Your task to perform on an android device: Open the phone app and click the voicemail tab. Image 0: 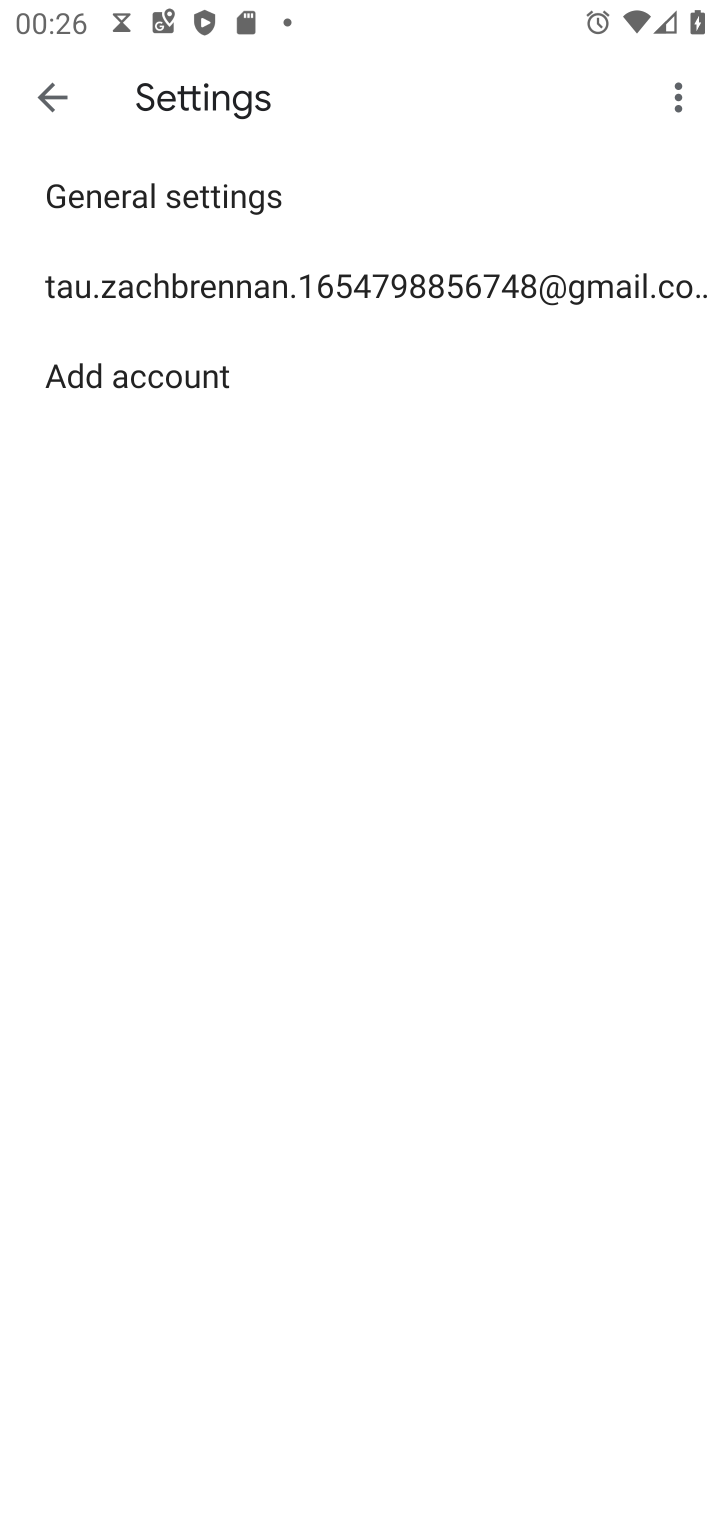
Step 0: press home button
Your task to perform on an android device: Open the phone app and click the voicemail tab. Image 1: 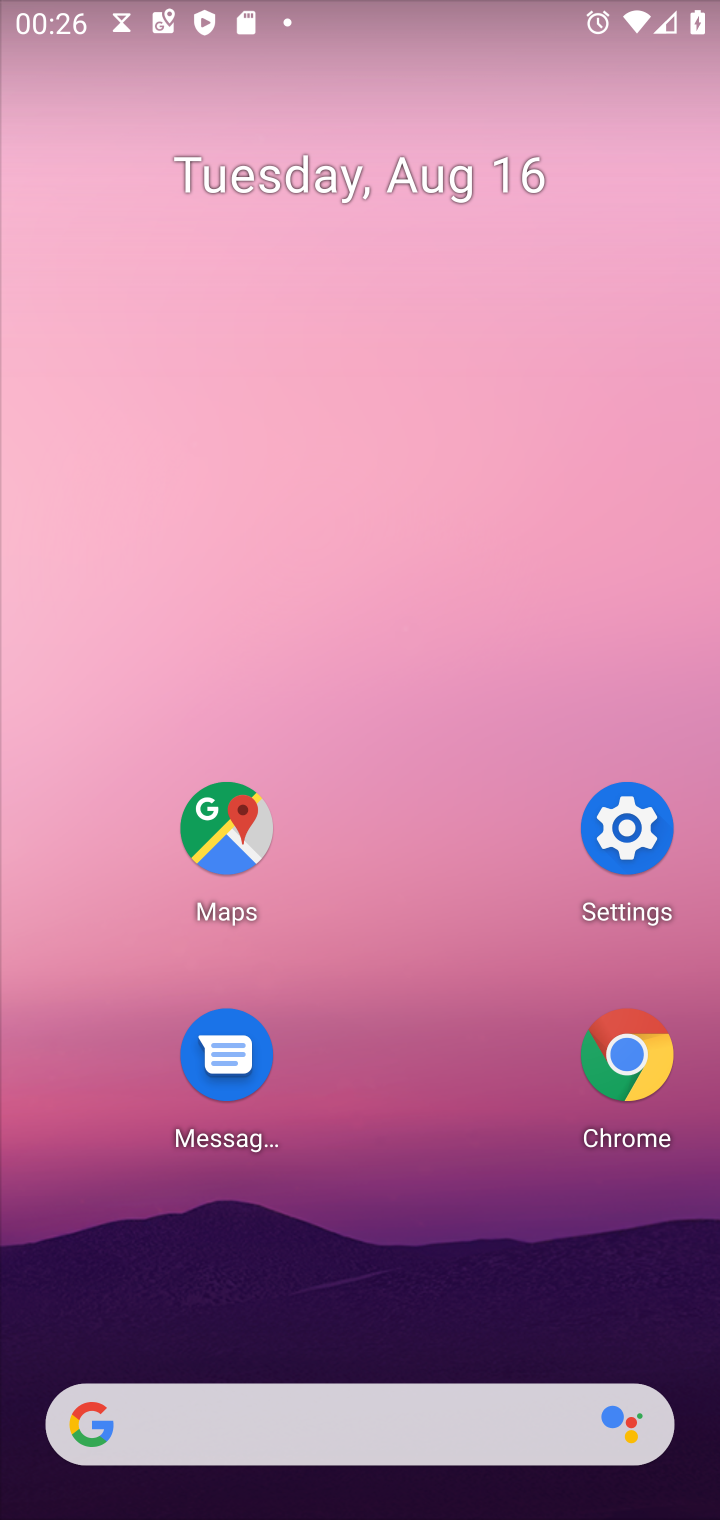
Step 1: drag from (382, 998) to (515, 363)
Your task to perform on an android device: Open the phone app and click the voicemail tab. Image 2: 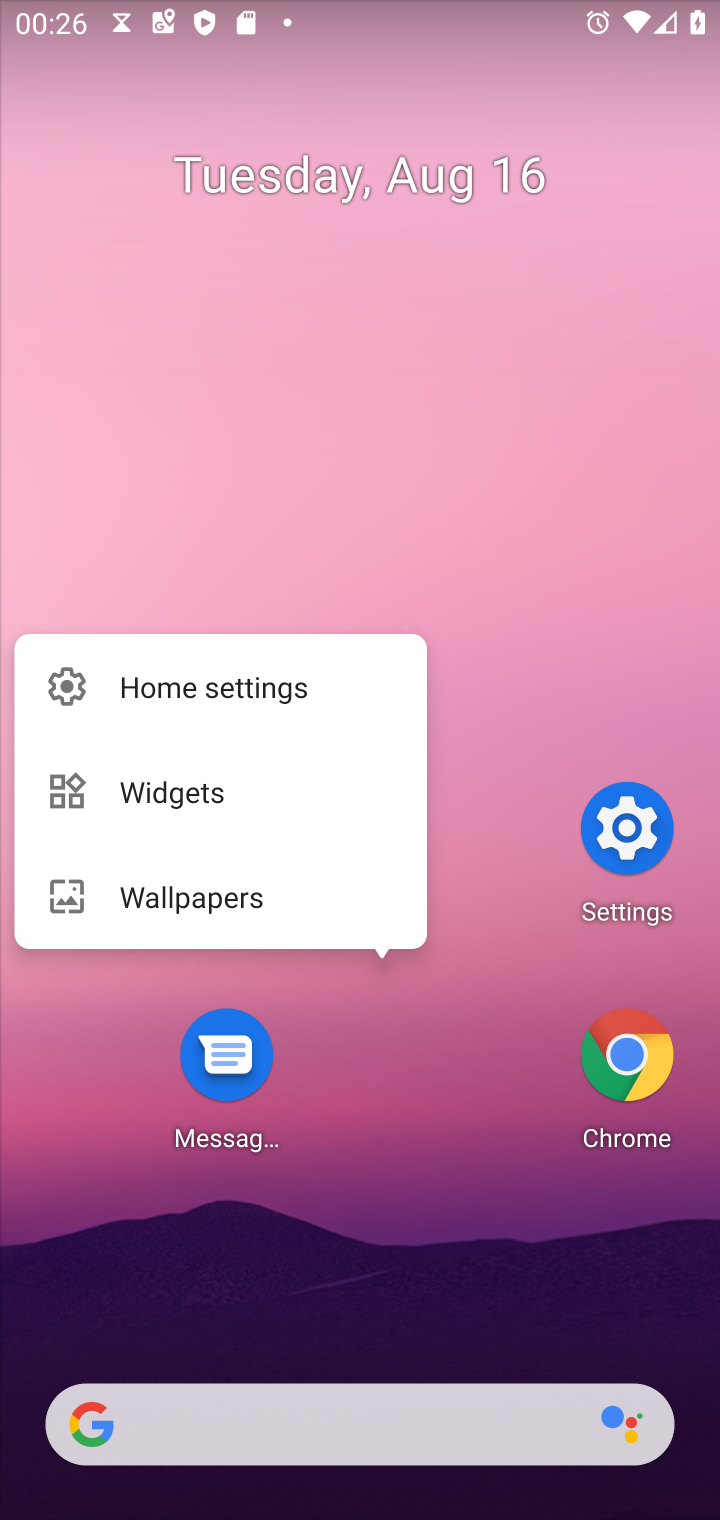
Step 2: drag from (404, 1302) to (595, 153)
Your task to perform on an android device: Open the phone app and click the voicemail tab. Image 3: 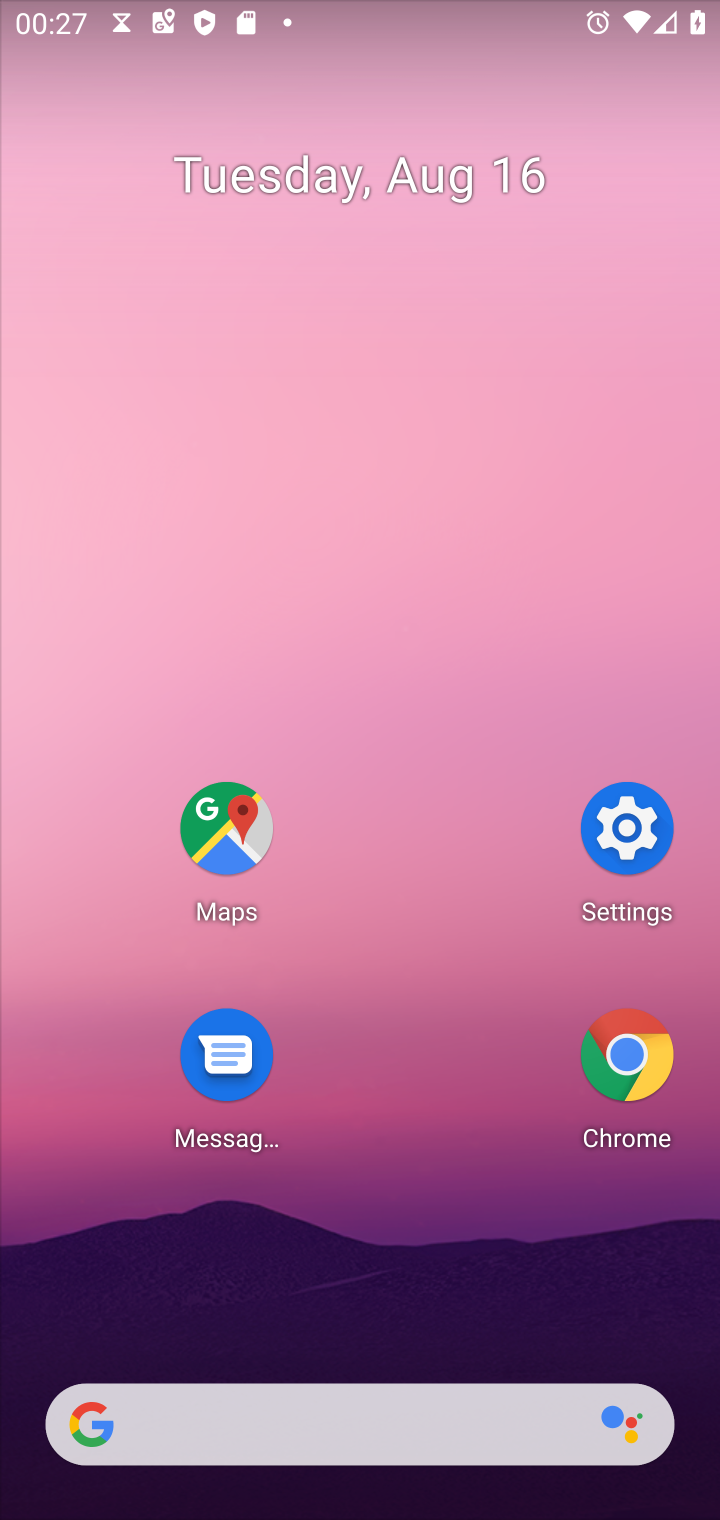
Step 3: drag from (457, 837) to (539, 348)
Your task to perform on an android device: Open the phone app and click the voicemail tab. Image 4: 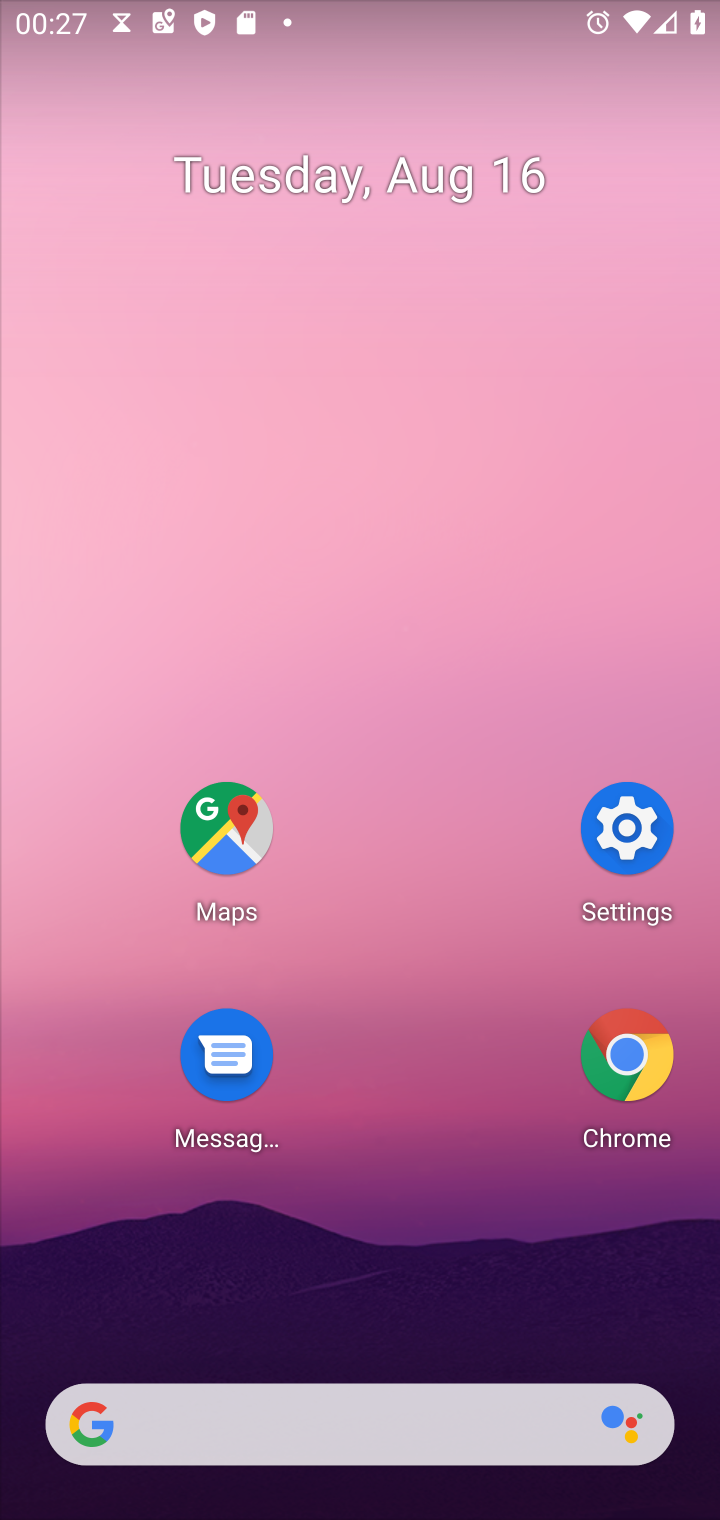
Step 4: drag from (479, 711) to (581, 238)
Your task to perform on an android device: Open the phone app and click the voicemail tab. Image 5: 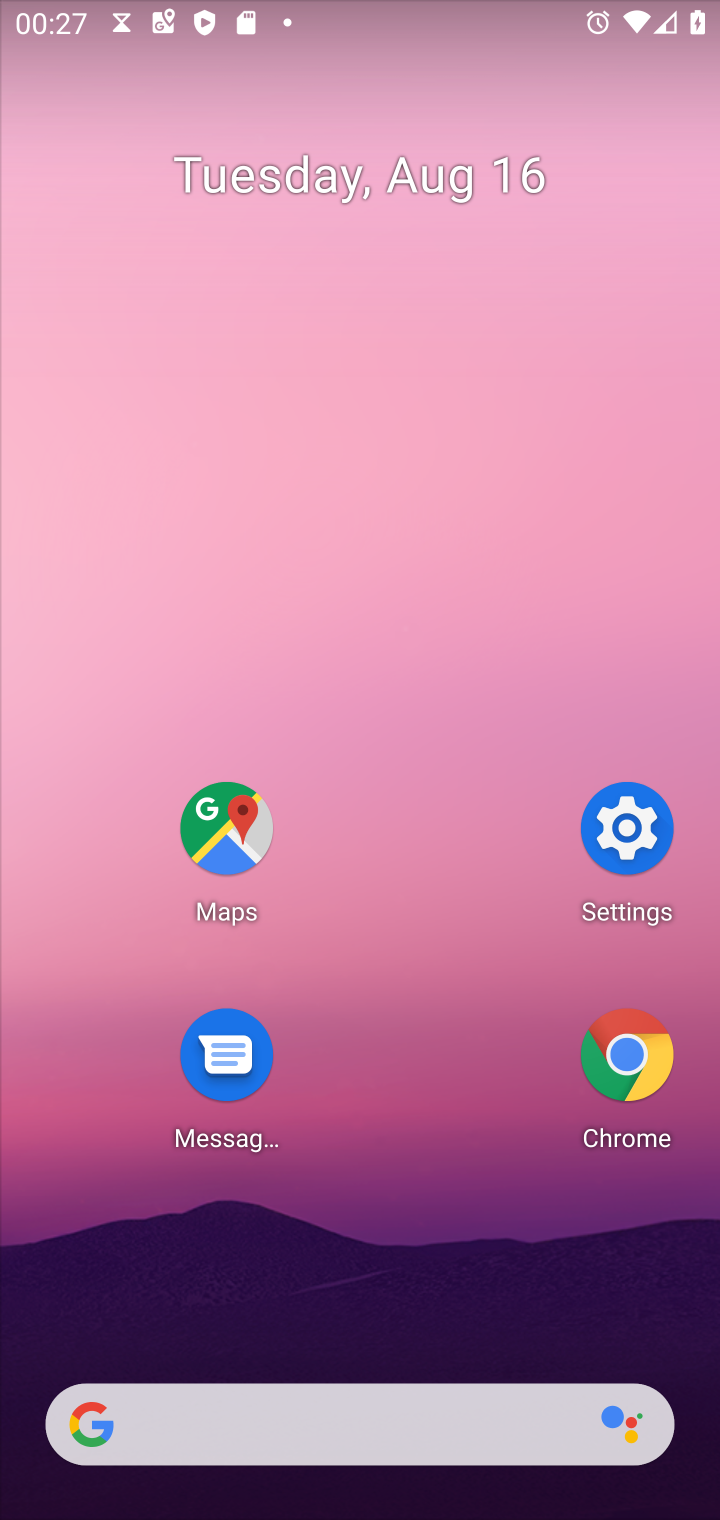
Step 5: drag from (428, 1193) to (537, 122)
Your task to perform on an android device: Open the phone app and click the voicemail tab. Image 6: 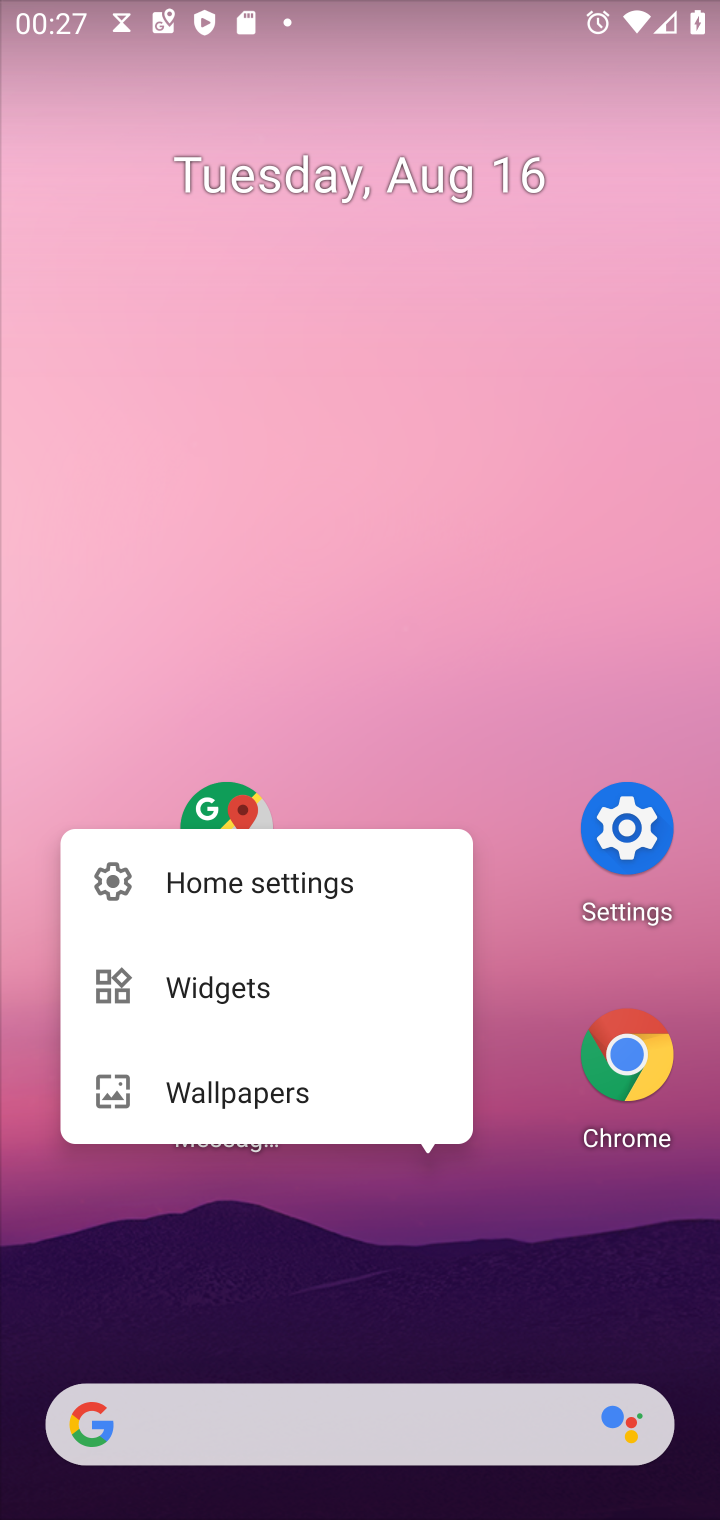
Step 6: drag from (513, 673) to (586, 218)
Your task to perform on an android device: Open the phone app and click the voicemail tab. Image 7: 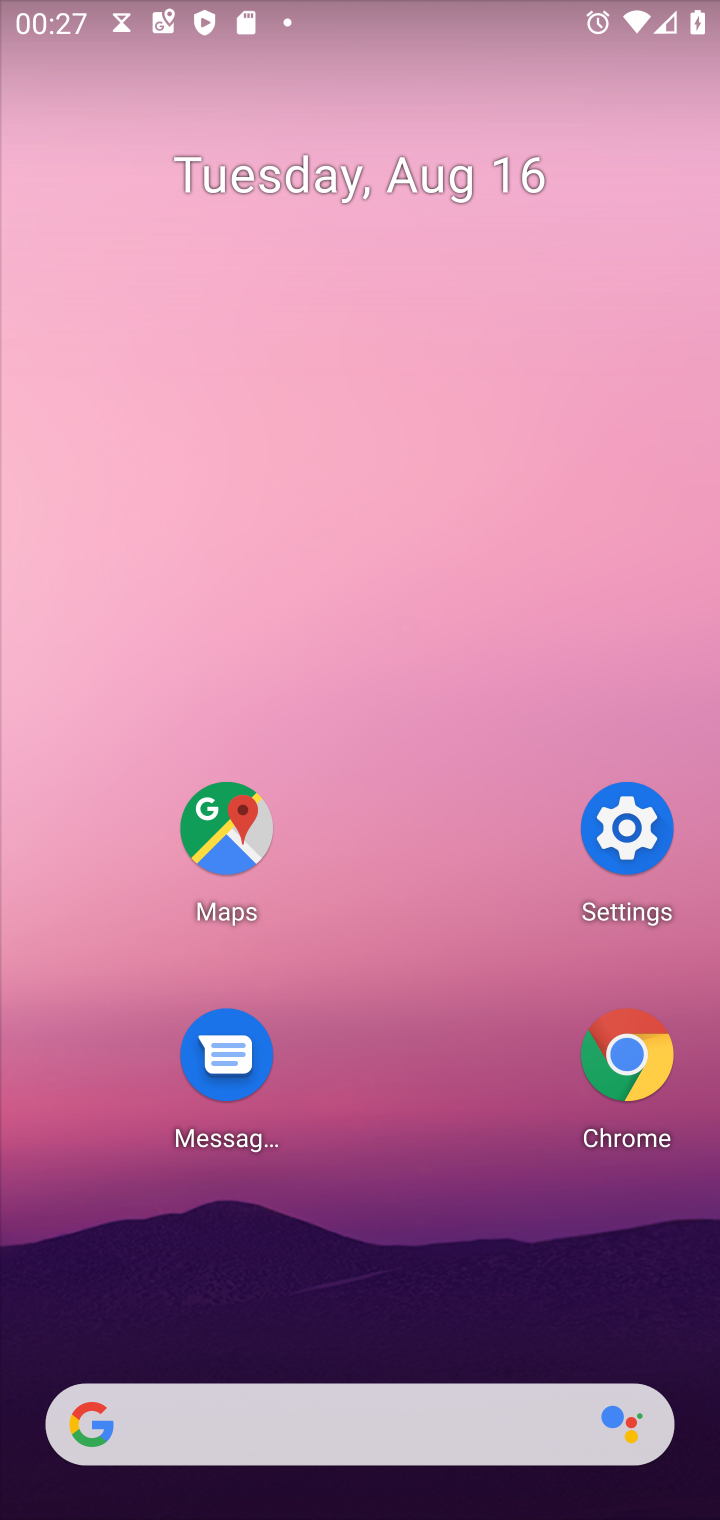
Step 7: drag from (362, 1322) to (659, 201)
Your task to perform on an android device: Open the phone app and click the voicemail tab. Image 8: 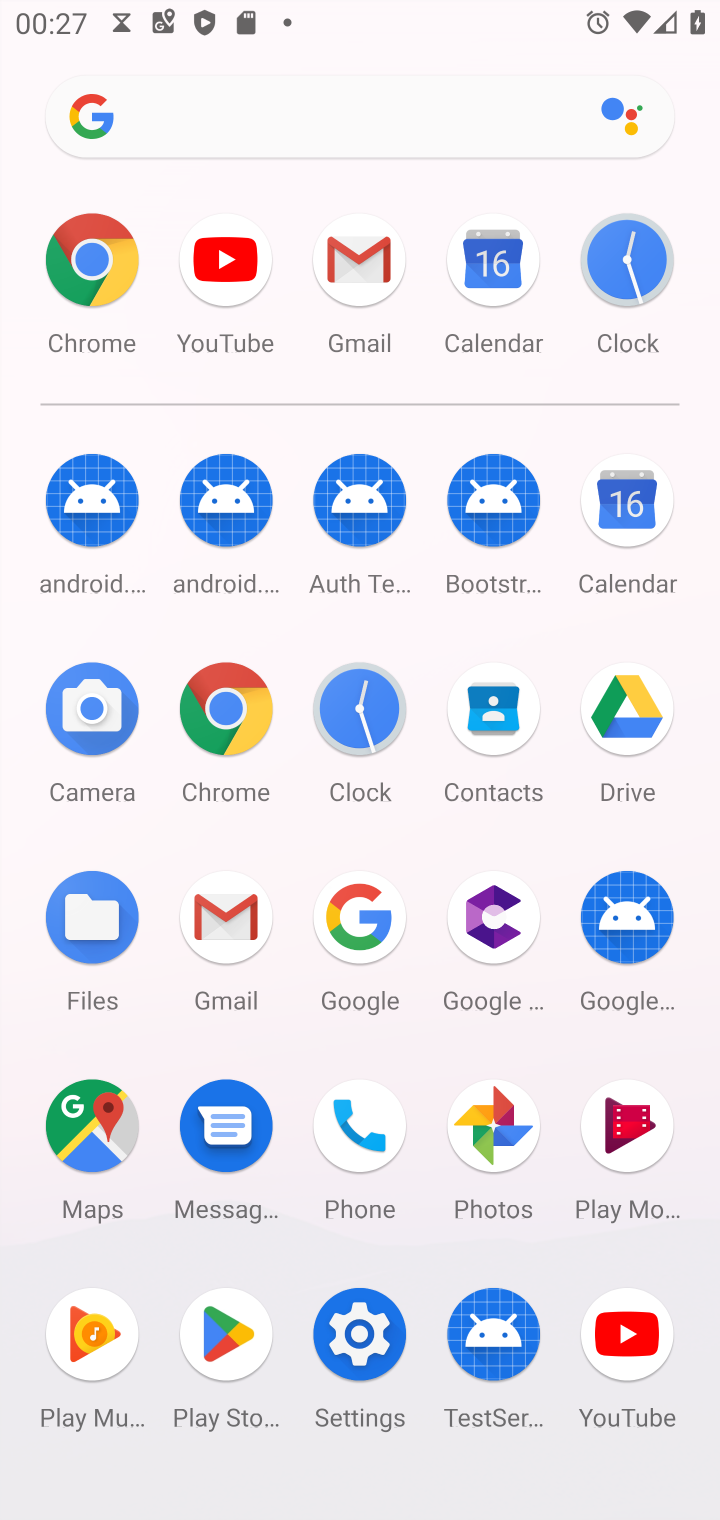
Step 8: click (350, 1133)
Your task to perform on an android device: Open the phone app and click the voicemail tab. Image 9: 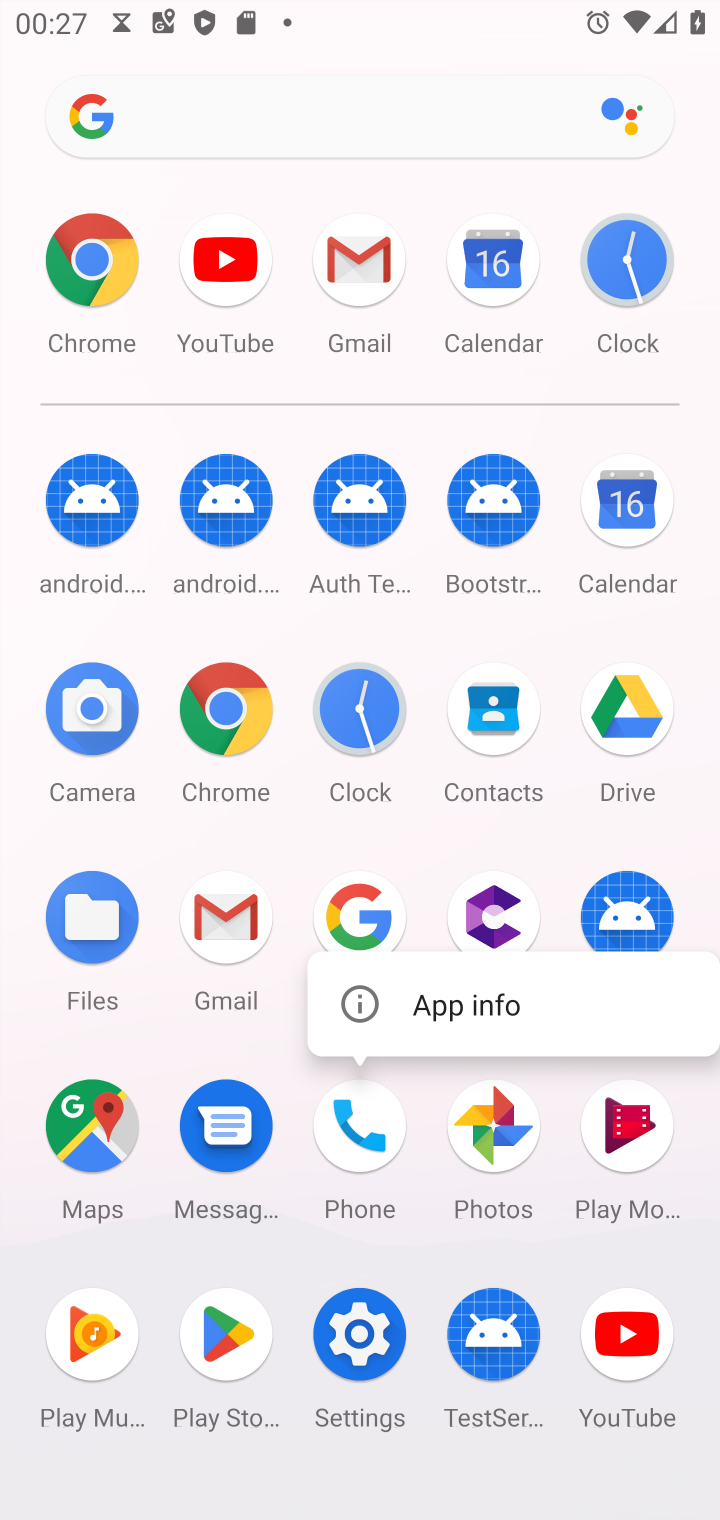
Step 9: click (362, 1135)
Your task to perform on an android device: Open the phone app and click the voicemail tab. Image 10: 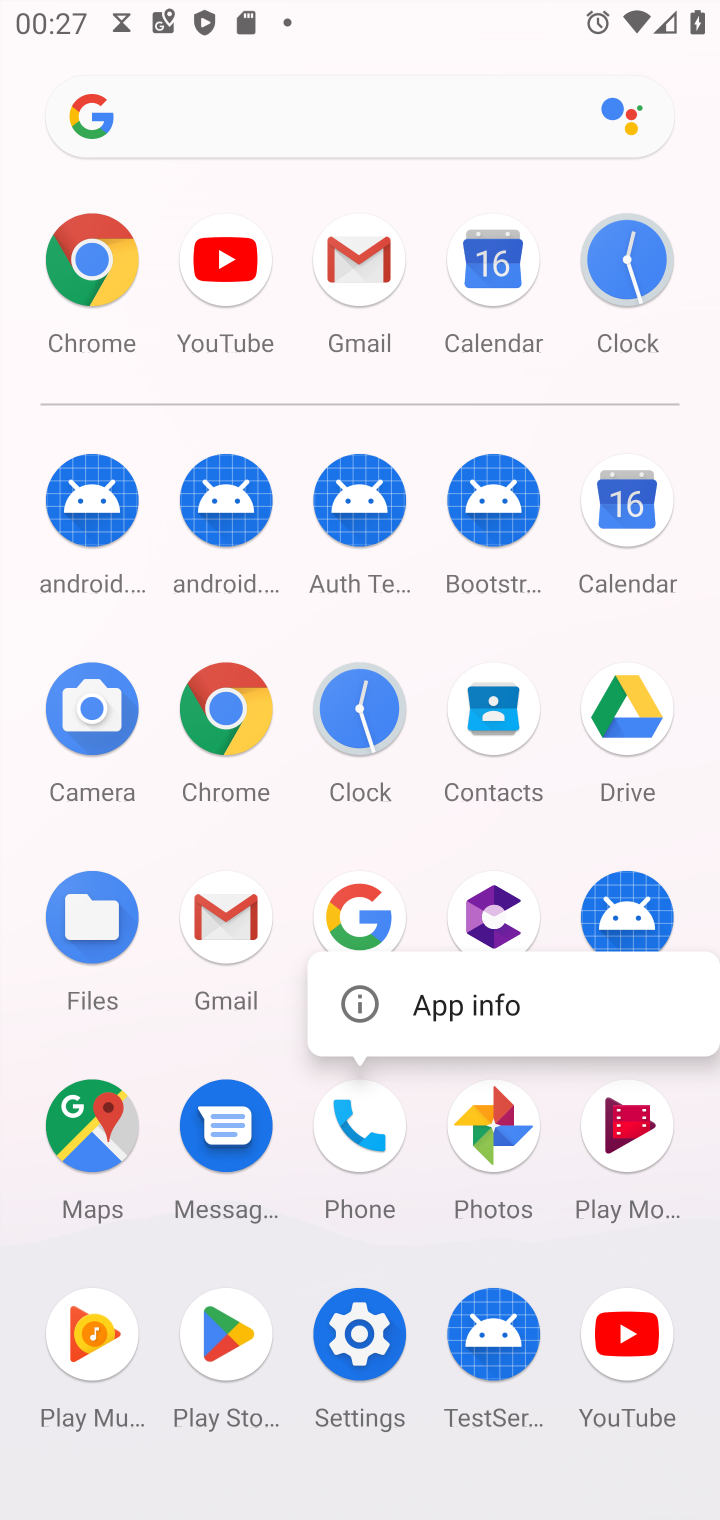
Step 10: click (362, 1144)
Your task to perform on an android device: Open the phone app and click the voicemail tab. Image 11: 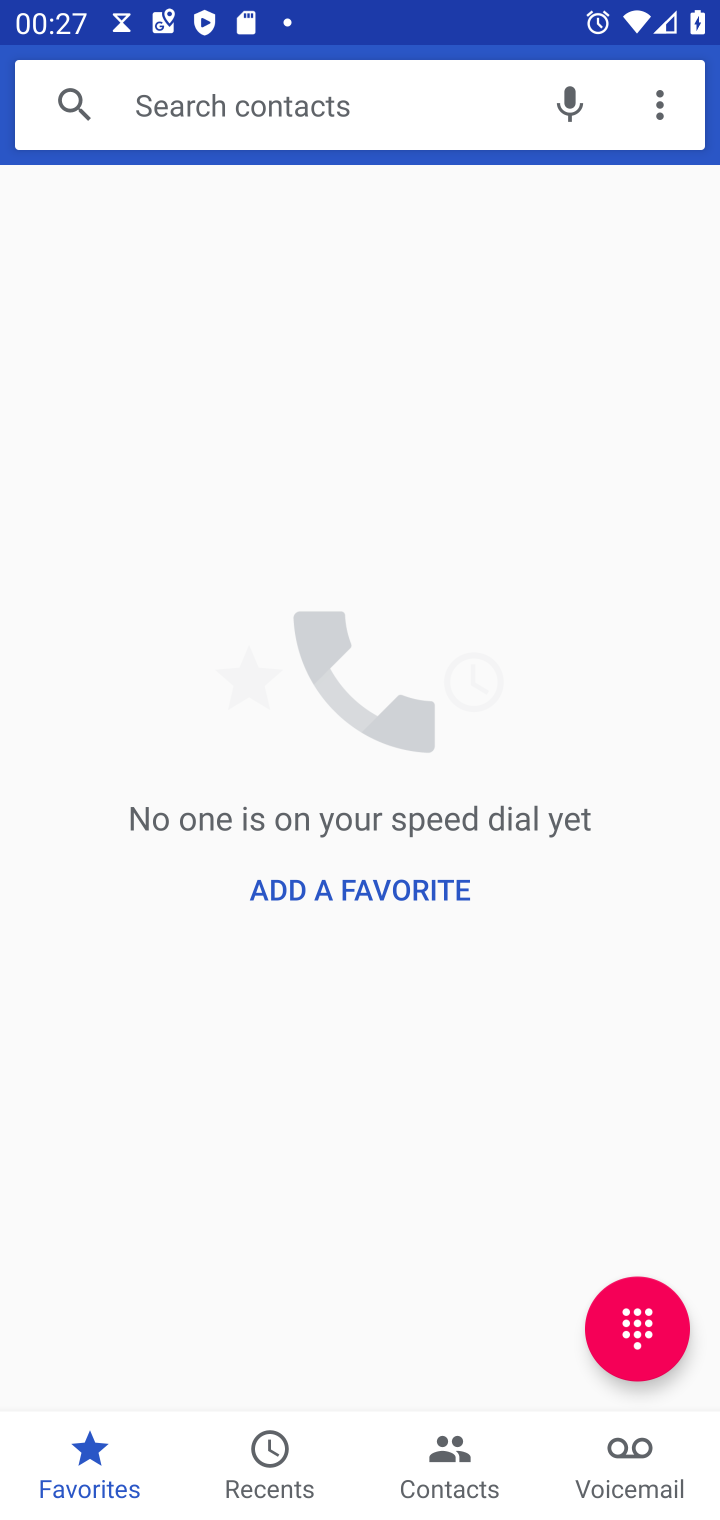
Step 11: click (632, 1438)
Your task to perform on an android device: Open the phone app and click the voicemail tab. Image 12: 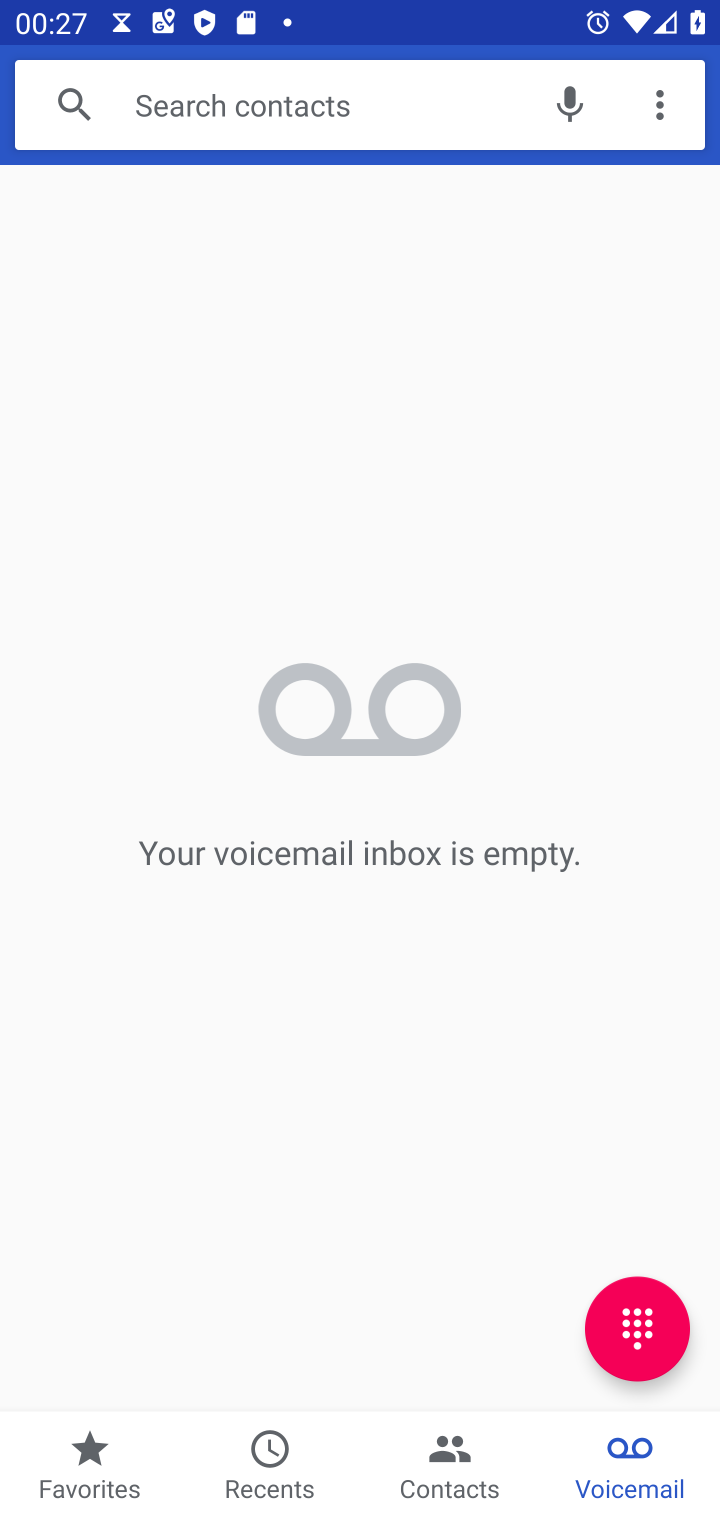
Step 12: task complete